Your task to perform on an android device: turn off wifi Image 0: 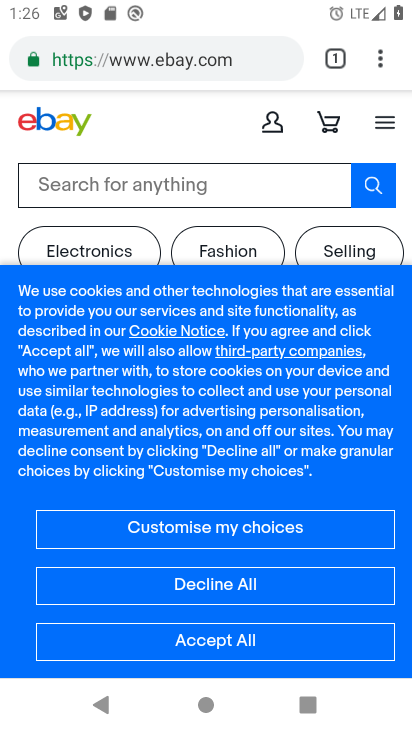
Step 0: press home button
Your task to perform on an android device: turn off wifi Image 1: 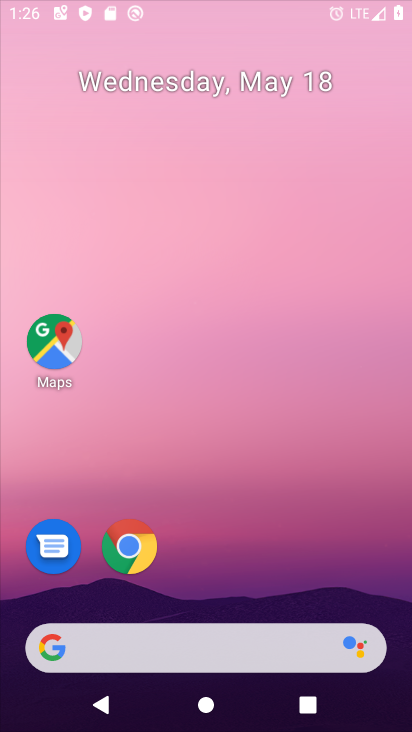
Step 1: drag from (243, 654) to (273, 102)
Your task to perform on an android device: turn off wifi Image 2: 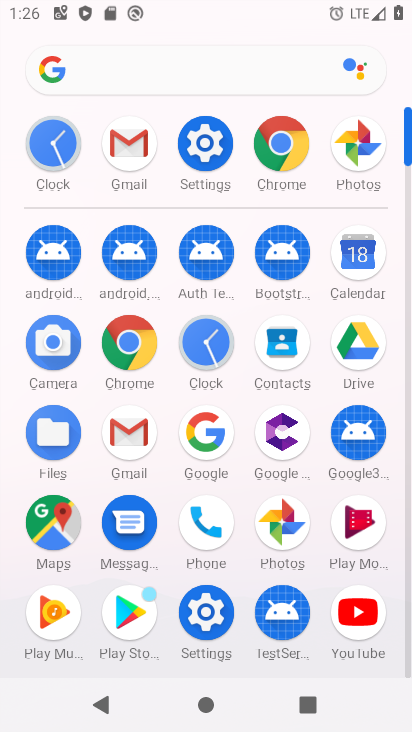
Step 2: click (208, 156)
Your task to perform on an android device: turn off wifi Image 3: 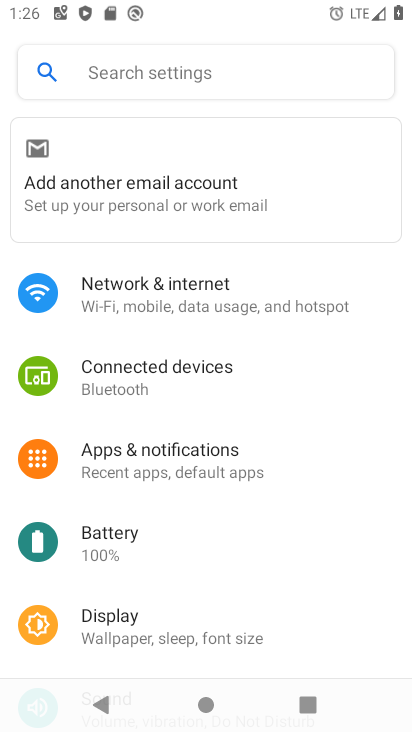
Step 3: click (240, 303)
Your task to perform on an android device: turn off wifi Image 4: 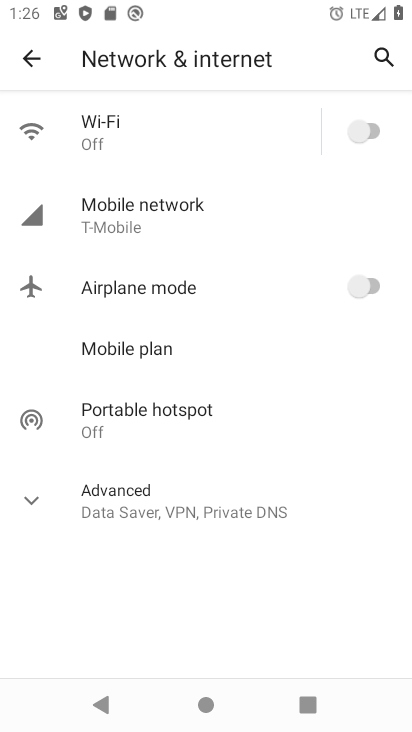
Step 4: task complete